Your task to perform on an android device: Look up the best rated gaming chair on Target. Image 0: 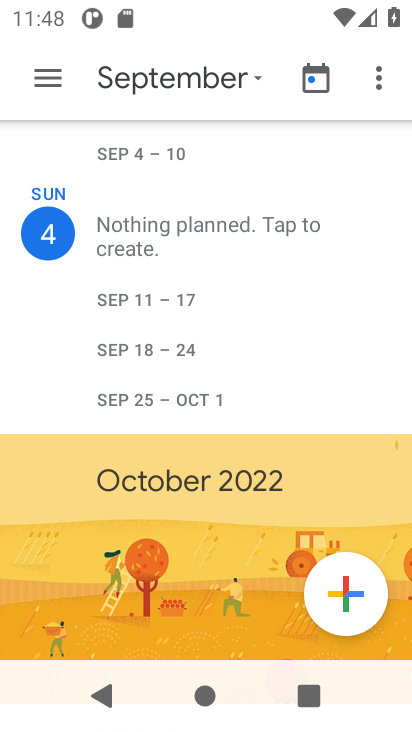
Step 0: task complete